Your task to perform on an android device: Open Google Chrome and click the shortcut for Amazon.com Image 0: 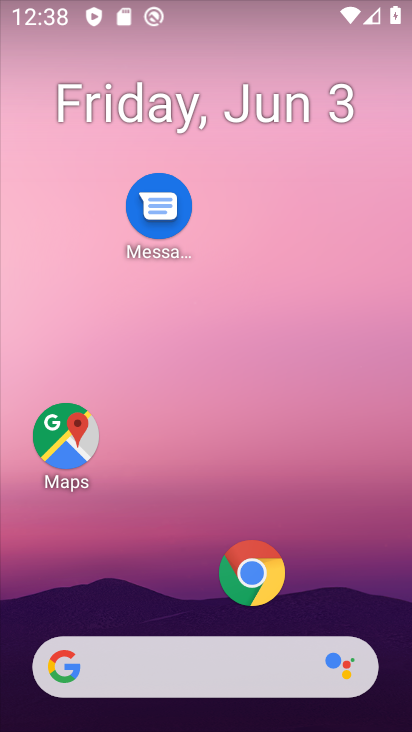
Step 0: click (251, 583)
Your task to perform on an android device: Open Google Chrome and click the shortcut for Amazon.com Image 1: 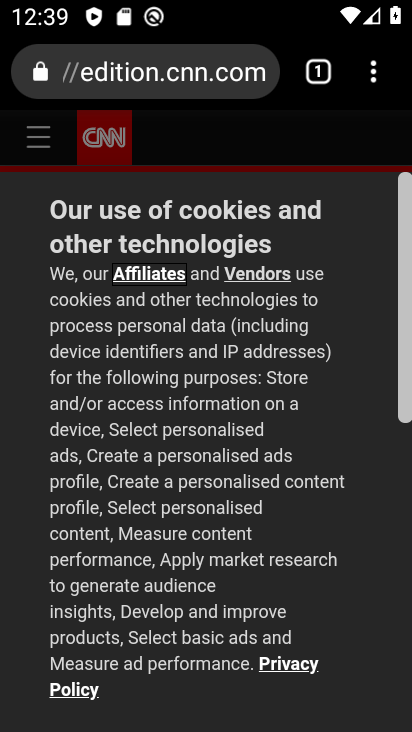
Step 1: click (318, 75)
Your task to perform on an android device: Open Google Chrome and click the shortcut for Amazon.com Image 2: 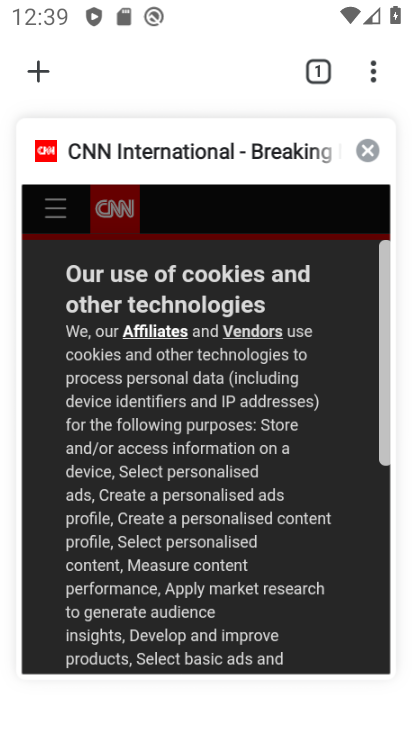
Step 2: click (363, 148)
Your task to perform on an android device: Open Google Chrome and click the shortcut for Amazon.com Image 3: 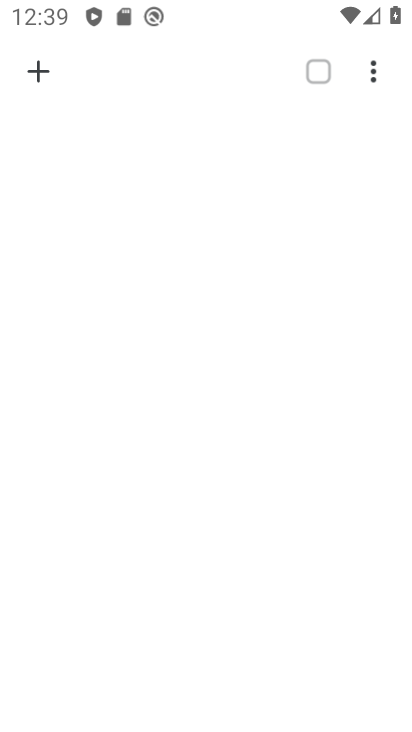
Step 3: click (37, 73)
Your task to perform on an android device: Open Google Chrome and click the shortcut for Amazon.com Image 4: 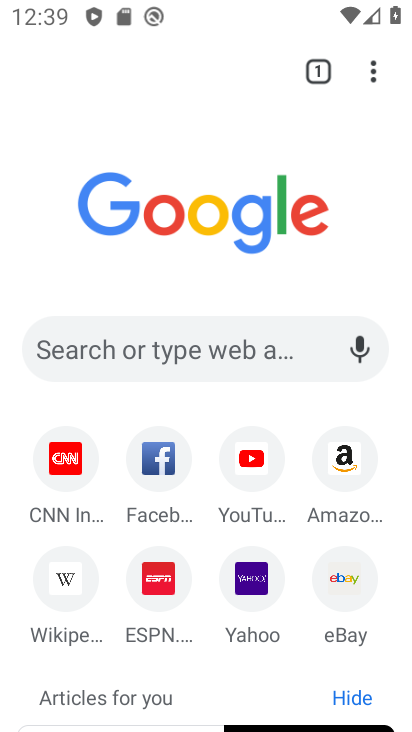
Step 4: click (336, 467)
Your task to perform on an android device: Open Google Chrome and click the shortcut for Amazon.com Image 5: 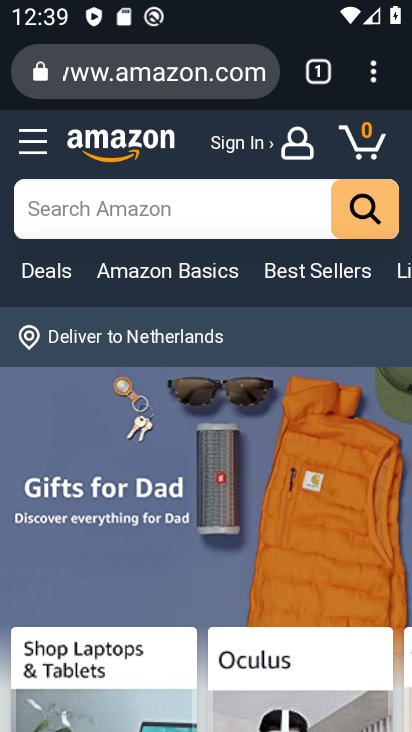
Step 5: task complete